Your task to perform on an android device: toggle data saver in the chrome app Image 0: 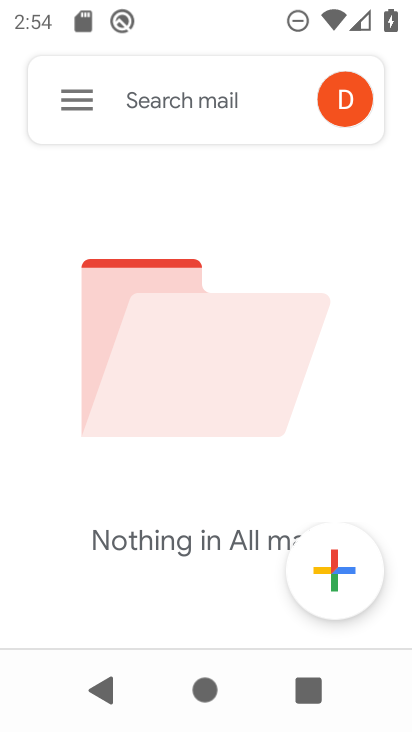
Step 0: press home button
Your task to perform on an android device: toggle data saver in the chrome app Image 1: 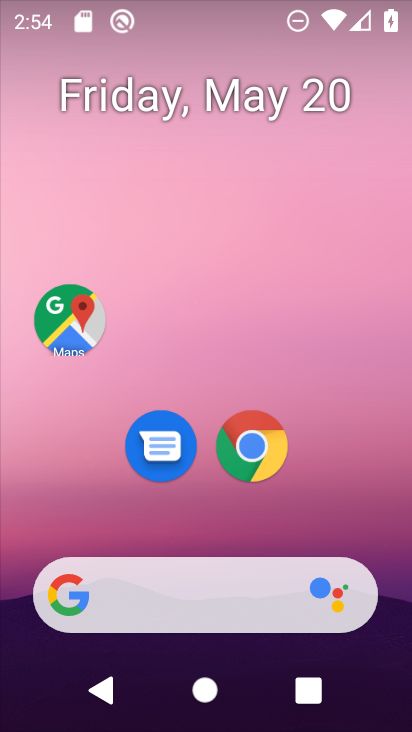
Step 1: click (240, 441)
Your task to perform on an android device: toggle data saver in the chrome app Image 2: 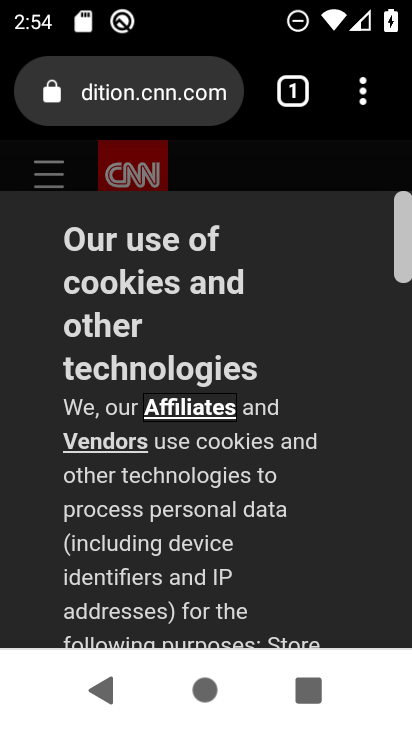
Step 2: click (369, 102)
Your task to perform on an android device: toggle data saver in the chrome app Image 3: 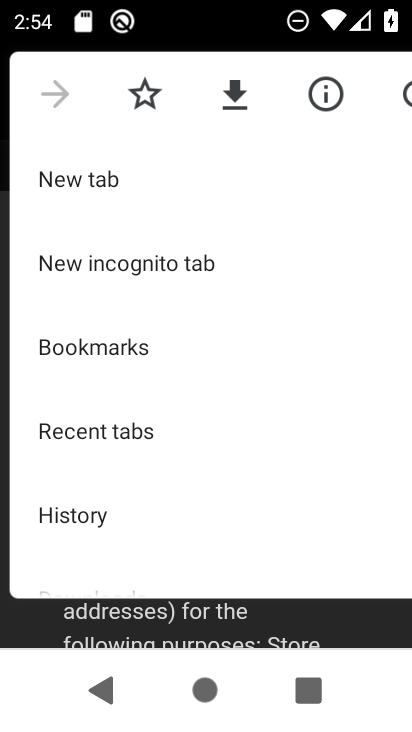
Step 3: drag from (351, 521) to (395, 30)
Your task to perform on an android device: toggle data saver in the chrome app Image 4: 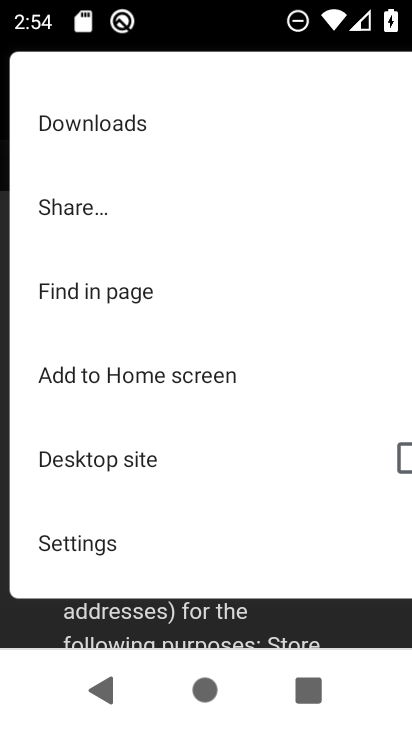
Step 4: click (101, 544)
Your task to perform on an android device: toggle data saver in the chrome app Image 5: 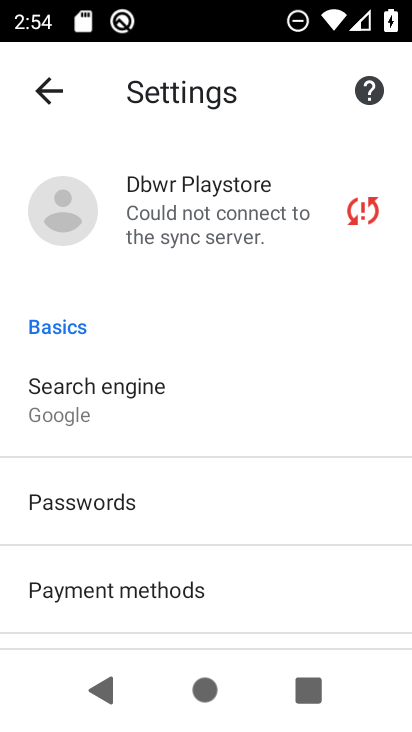
Step 5: drag from (316, 592) to (327, 72)
Your task to perform on an android device: toggle data saver in the chrome app Image 6: 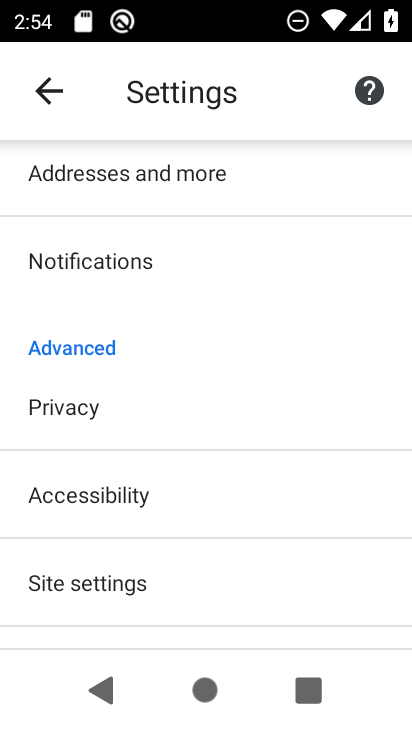
Step 6: drag from (229, 513) to (256, 110)
Your task to perform on an android device: toggle data saver in the chrome app Image 7: 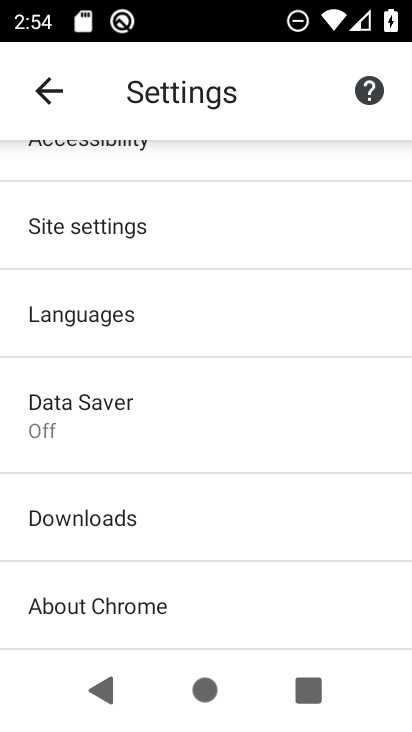
Step 7: click (75, 414)
Your task to perform on an android device: toggle data saver in the chrome app Image 8: 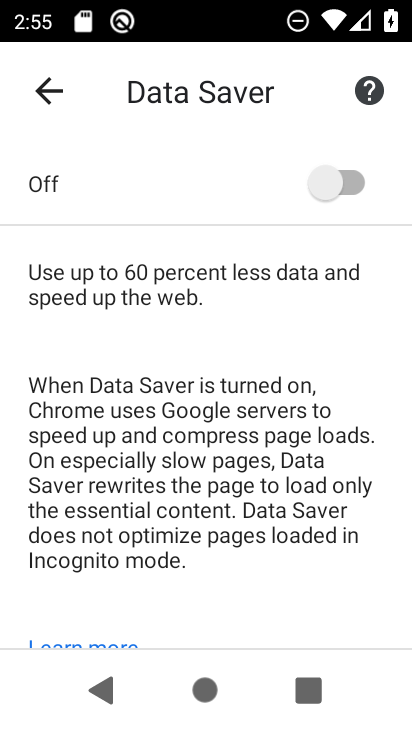
Step 8: click (328, 189)
Your task to perform on an android device: toggle data saver in the chrome app Image 9: 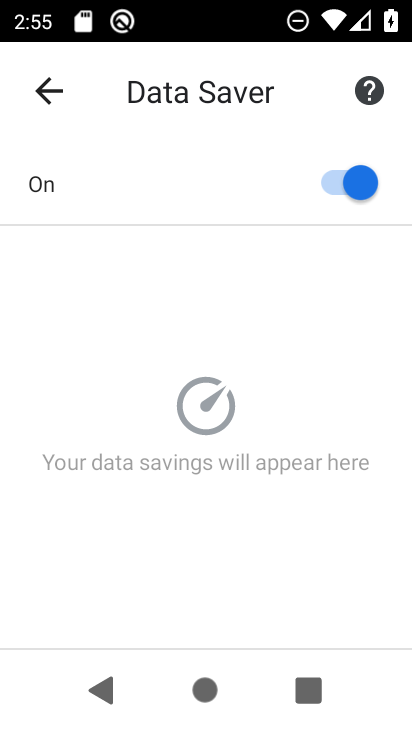
Step 9: task complete